Your task to perform on an android device: manage bookmarks in the chrome app Image 0: 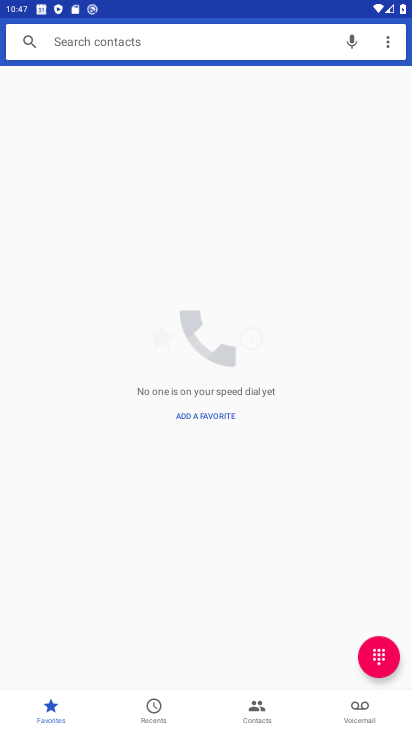
Step 0: press home button
Your task to perform on an android device: manage bookmarks in the chrome app Image 1: 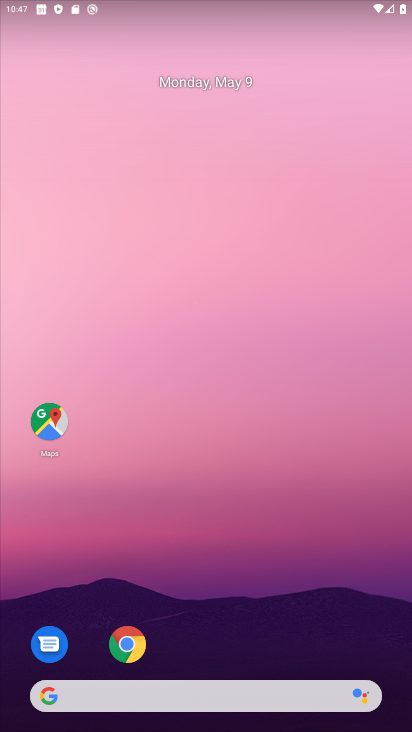
Step 1: click (136, 642)
Your task to perform on an android device: manage bookmarks in the chrome app Image 2: 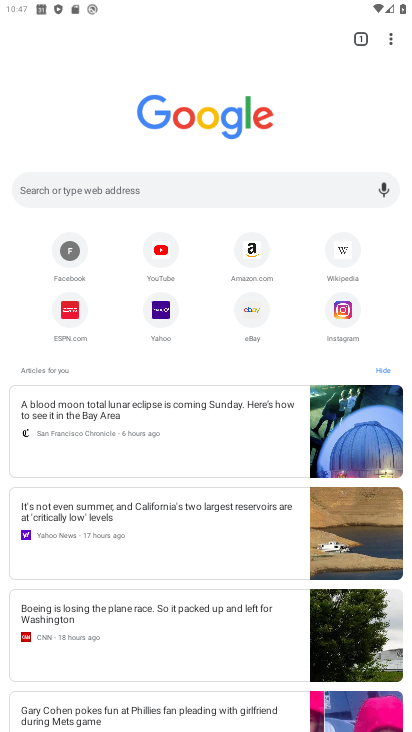
Step 2: click (393, 40)
Your task to perform on an android device: manage bookmarks in the chrome app Image 3: 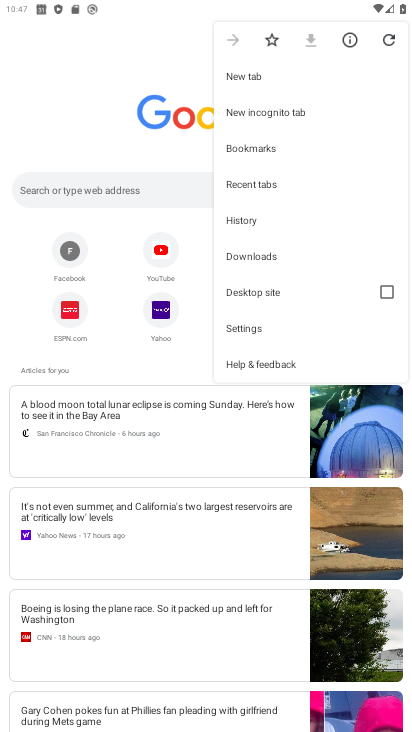
Step 3: click (251, 327)
Your task to perform on an android device: manage bookmarks in the chrome app Image 4: 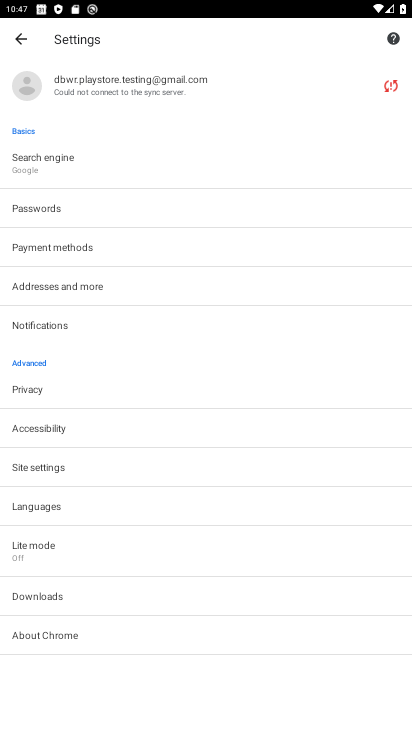
Step 4: click (21, 39)
Your task to perform on an android device: manage bookmarks in the chrome app Image 5: 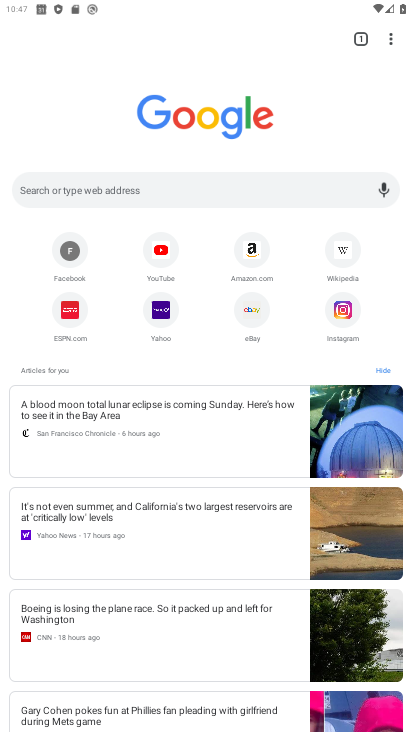
Step 5: click (405, 41)
Your task to perform on an android device: manage bookmarks in the chrome app Image 6: 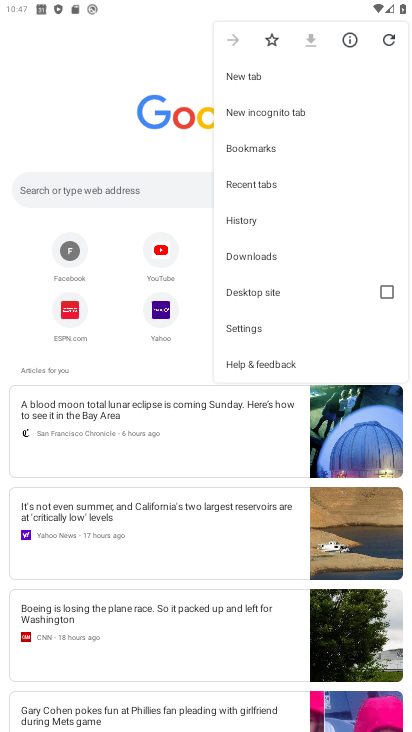
Step 6: click (264, 147)
Your task to perform on an android device: manage bookmarks in the chrome app Image 7: 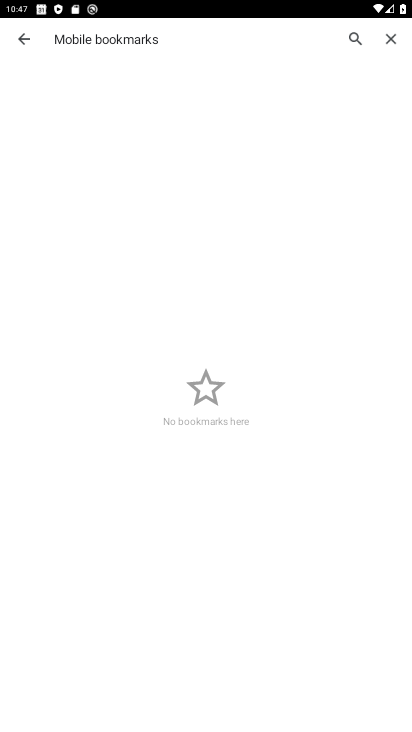
Step 7: task complete